Your task to perform on an android device: choose inbox layout in the gmail app Image 0: 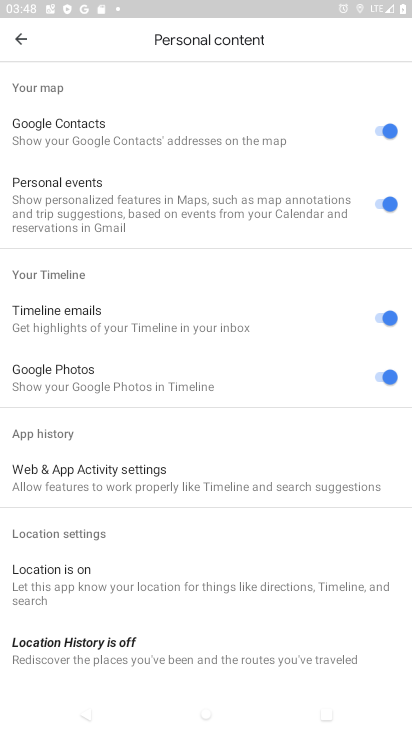
Step 0: press home button
Your task to perform on an android device: choose inbox layout in the gmail app Image 1: 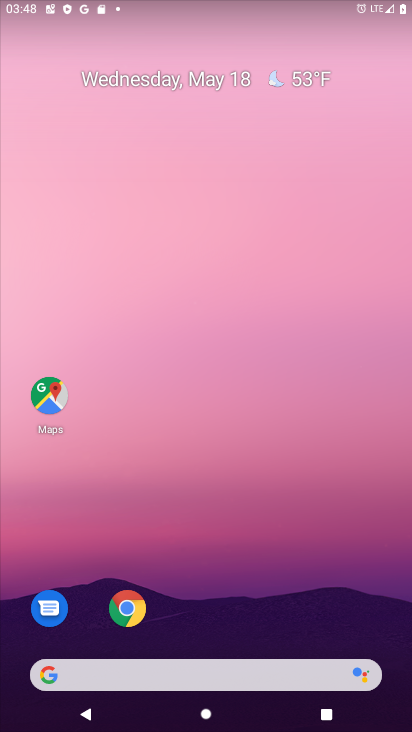
Step 1: drag from (287, 618) to (267, 19)
Your task to perform on an android device: choose inbox layout in the gmail app Image 2: 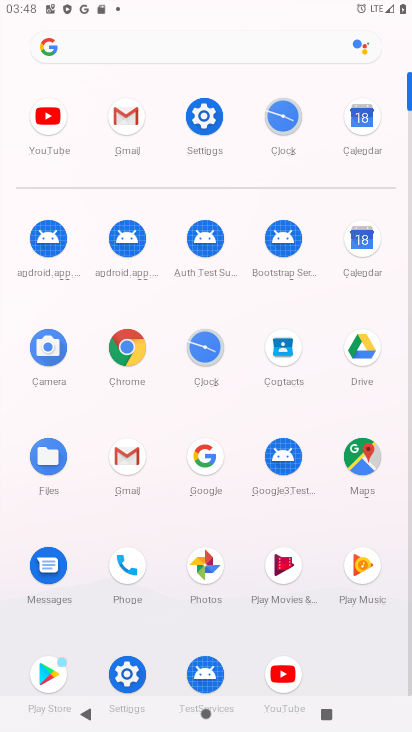
Step 2: click (120, 120)
Your task to perform on an android device: choose inbox layout in the gmail app Image 3: 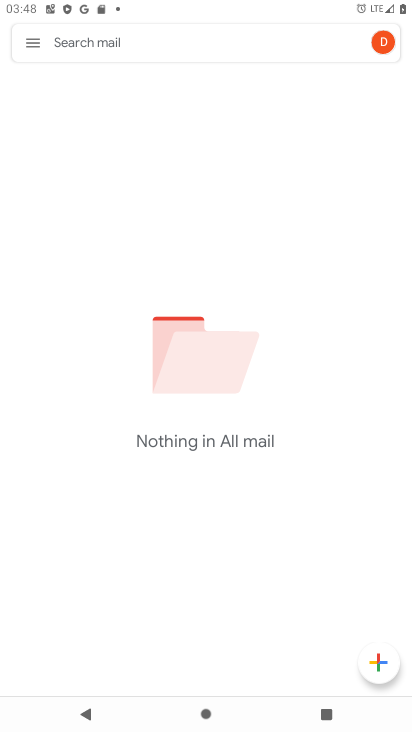
Step 3: click (24, 46)
Your task to perform on an android device: choose inbox layout in the gmail app Image 4: 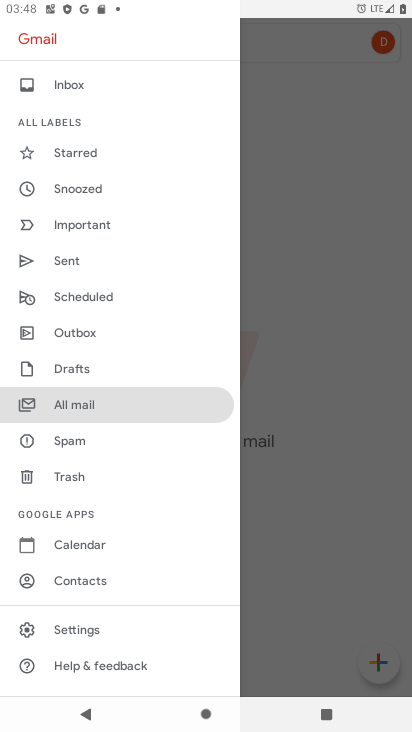
Step 4: click (92, 633)
Your task to perform on an android device: choose inbox layout in the gmail app Image 5: 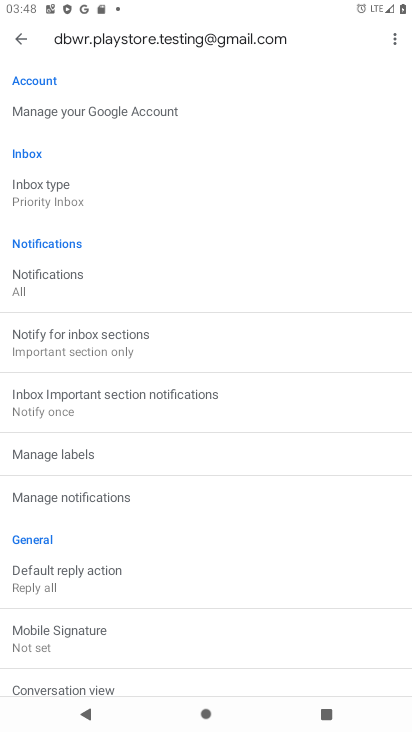
Step 5: click (35, 204)
Your task to perform on an android device: choose inbox layout in the gmail app Image 6: 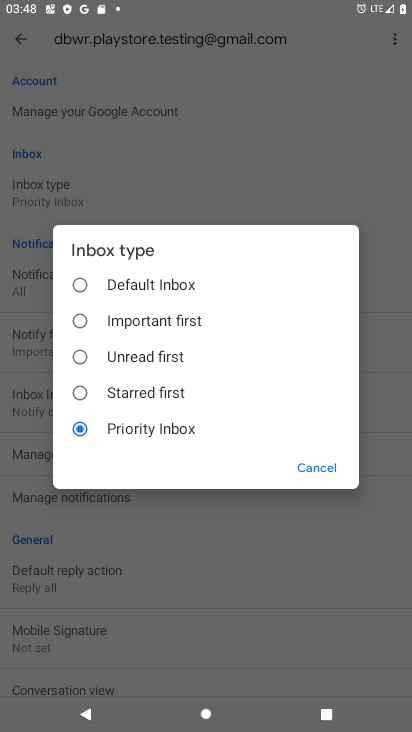
Step 6: click (85, 359)
Your task to perform on an android device: choose inbox layout in the gmail app Image 7: 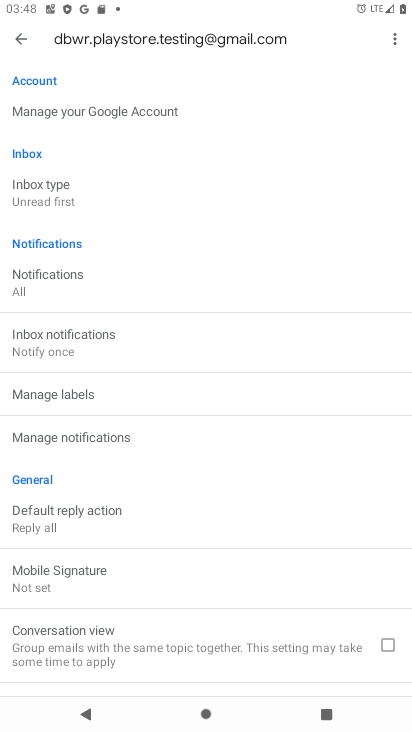
Step 7: task complete